Your task to perform on an android device: Show me recent news Image 0: 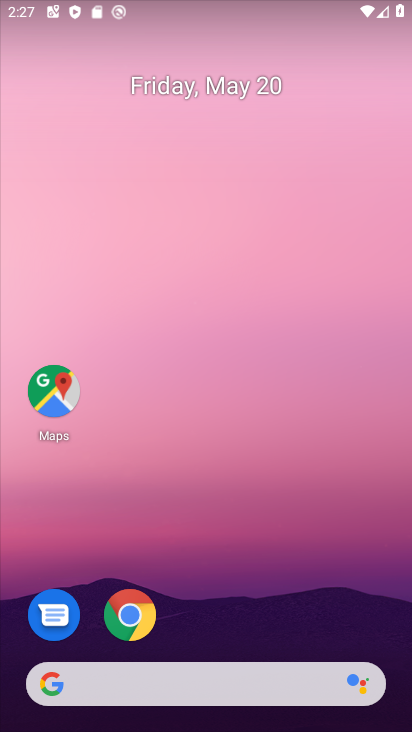
Step 0: drag from (314, 618) to (284, 256)
Your task to perform on an android device: Show me recent news Image 1: 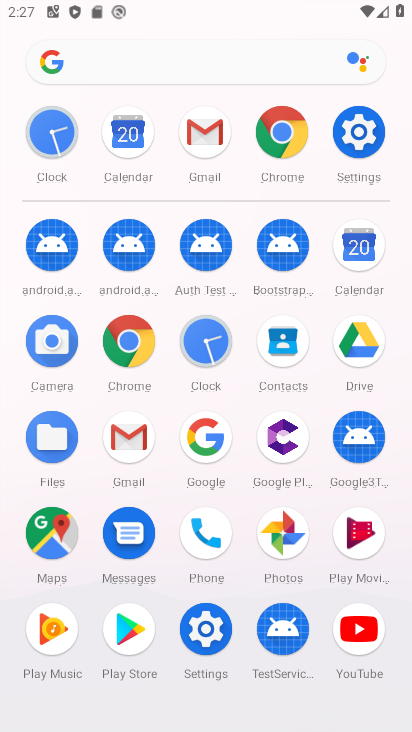
Step 1: click (266, 134)
Your task to perform on an android device: Show me recent news Image 2: 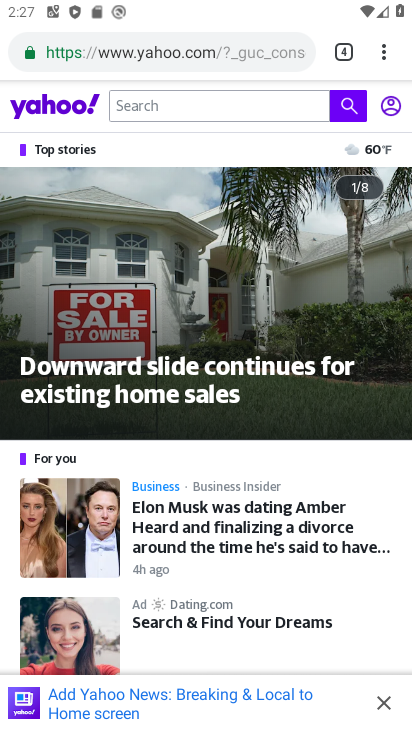
Step 2: click (375, 46)
Your task to perform on an android device: Show me recent news Image 3: 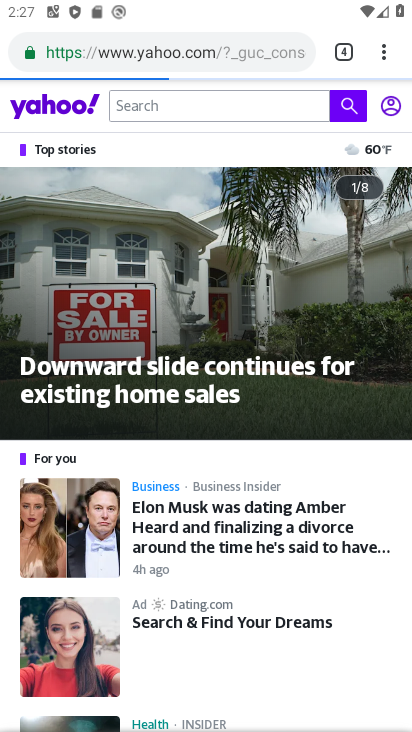
Step 3: click (386, 47)
Your task to perform on an android device: Show me recent news Image 4: 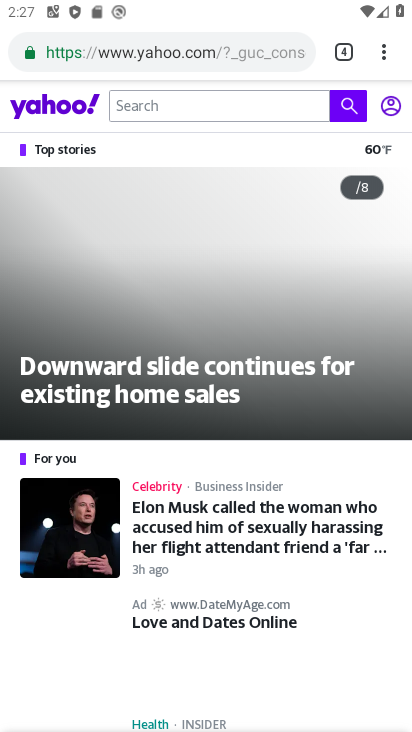
Step 4: click (374, 55)
Your task to perform on an android device: Show me recent news Image 5: 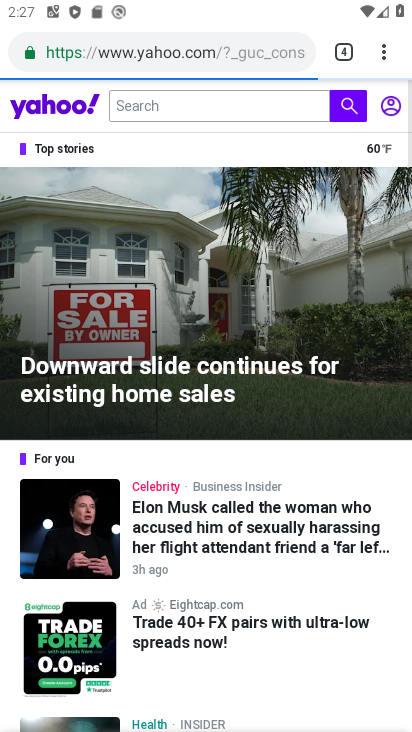
Step 5: click (369, 44)
Your task to perform on an android device: Show me recent news Image 6: 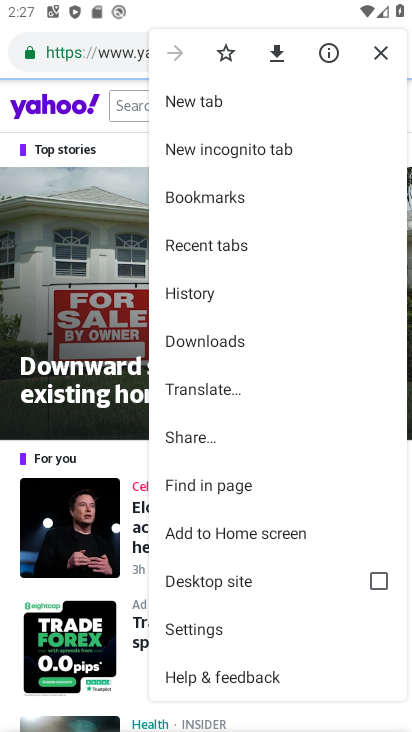
Step 6: click (246, 88)
Your task to perform on an android device: Show me recent news Image 7: 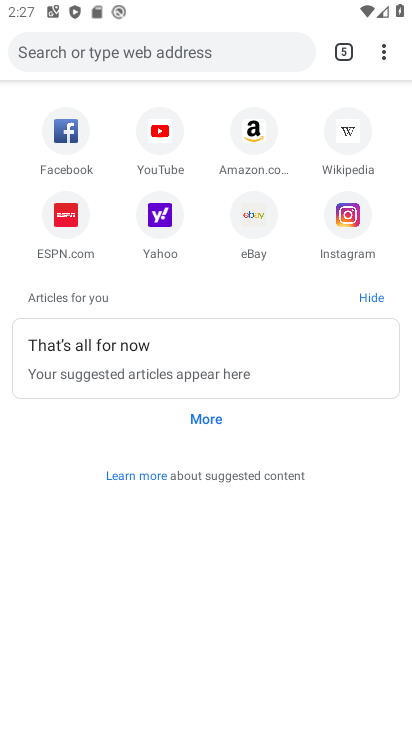
Step 7: click (101, 39)
Your task to perform on an android device: Show me recent news Image 8: 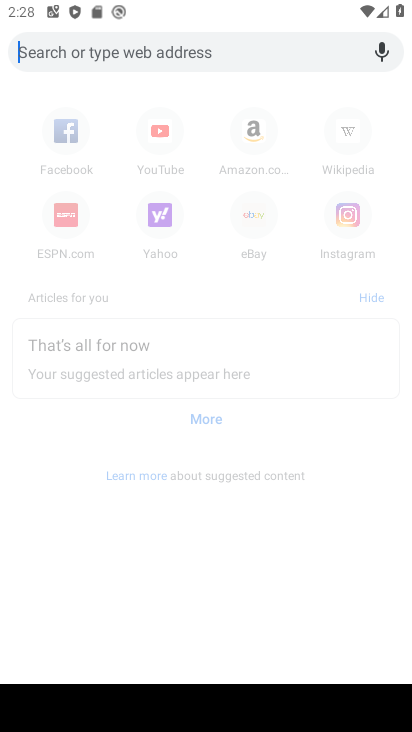
Step 8: click (176, 51)
Your task to perform on an android device: Show me recent news Image 9: 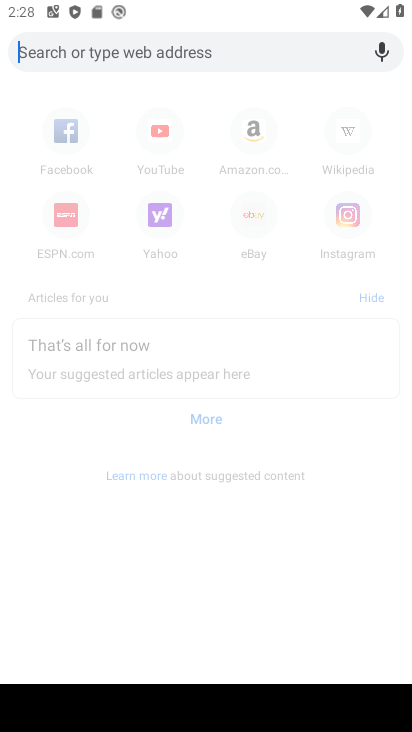
Step 9: type "Show me recent news"
Your task to perform on an android device: Show me recent news Image 10: 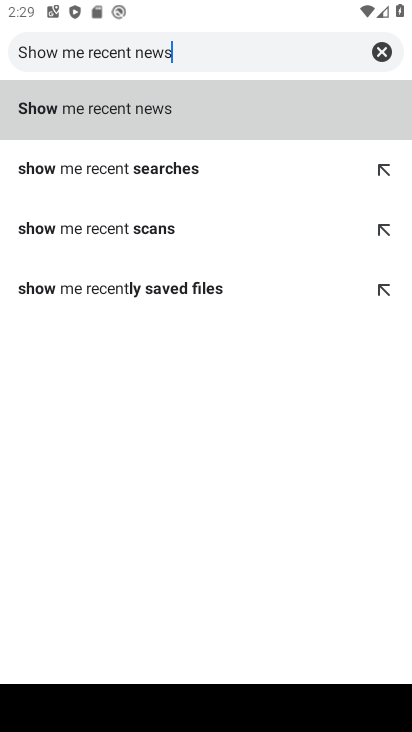
Step 10: click (218, 97)
Your task to perform on an android device: Show me recent news Image 11: 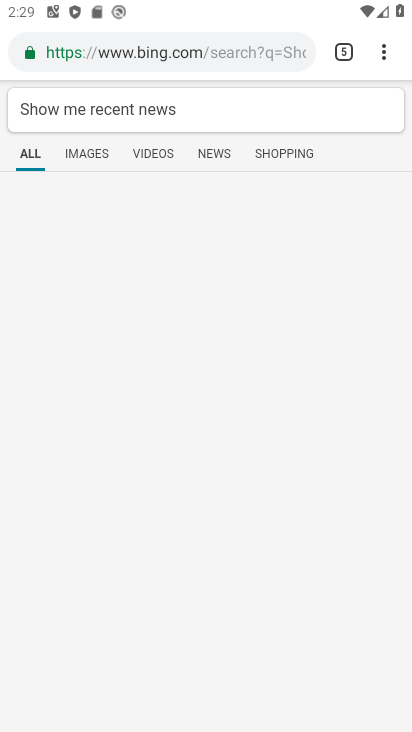
Step 11: task complete